Your task to perform on an android device: allow cookies in the chrome app Image 0: 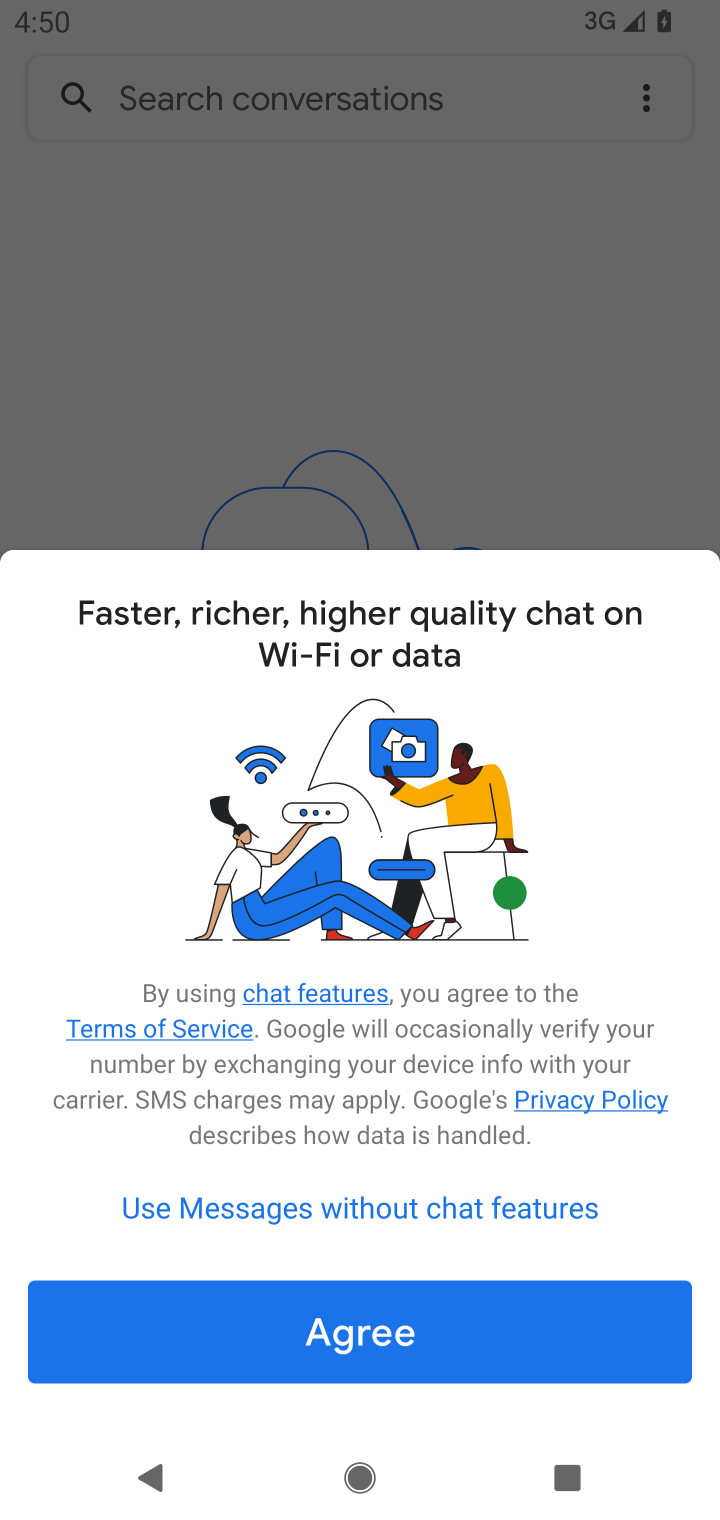
Step 0: press home button
Your task to perform on an android device: allow cookies in the chrome app Image 1: 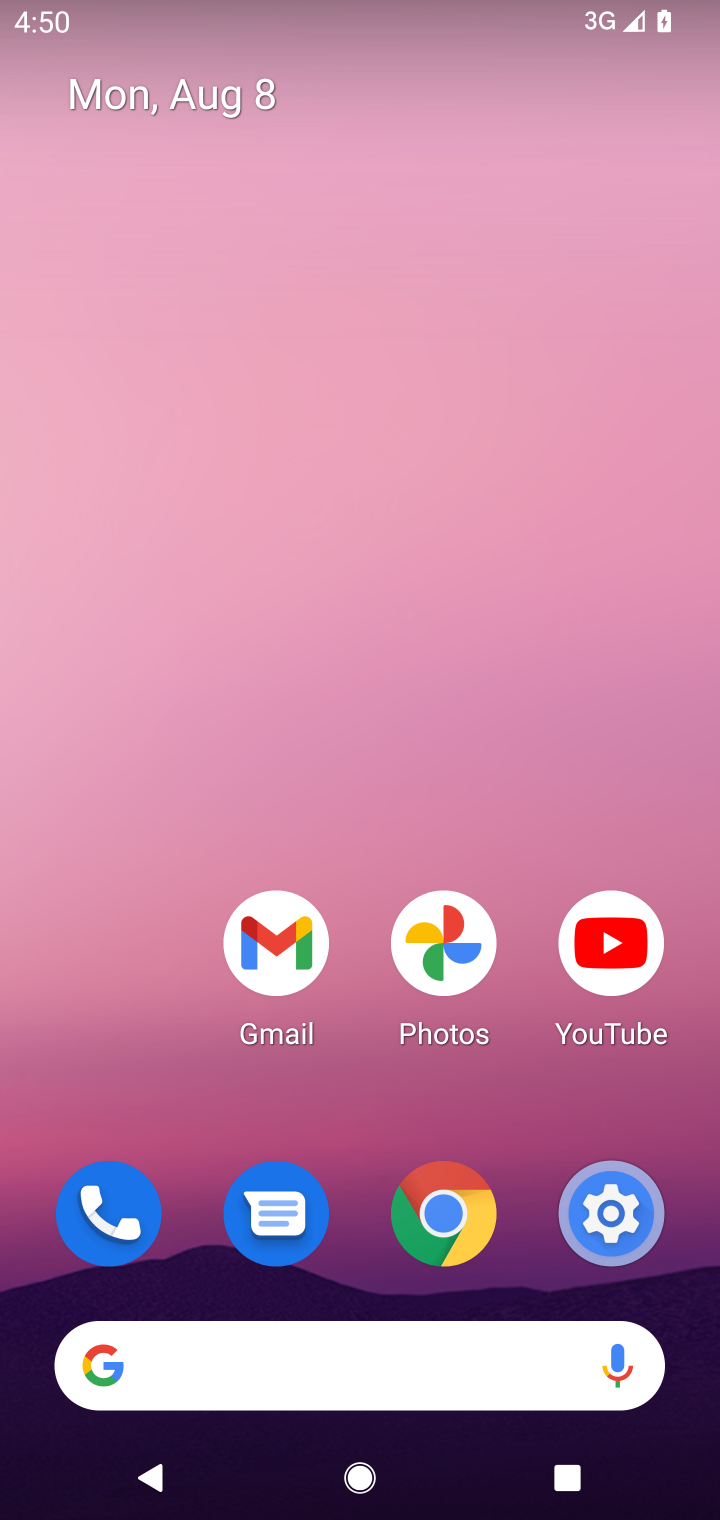
Step 1: click (406, 1193)
Your task to perform on an android device: allow cookies in the chrome app Image 2: 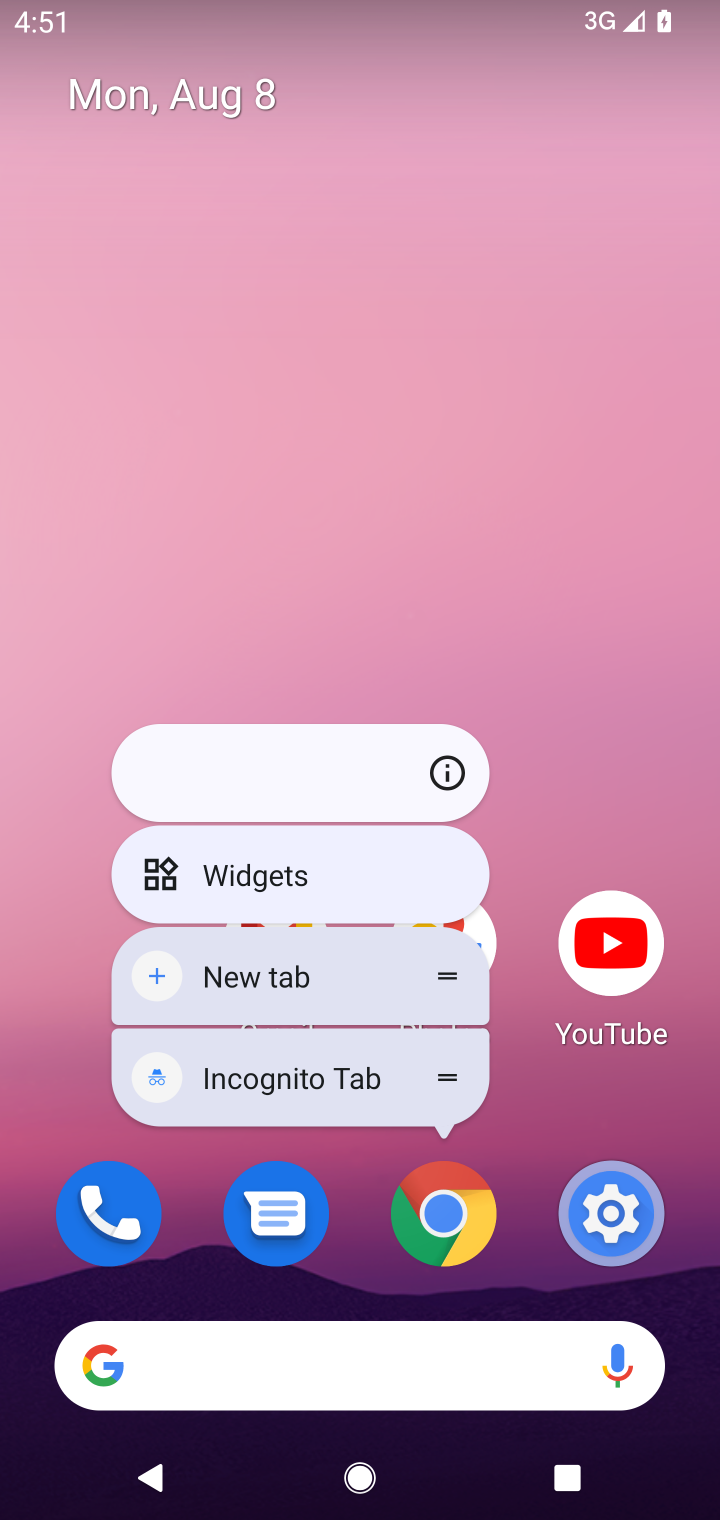
Step 2: click (406, 1193)
Your task to perform on an android device: allow cookies in the chrome app Image 3: 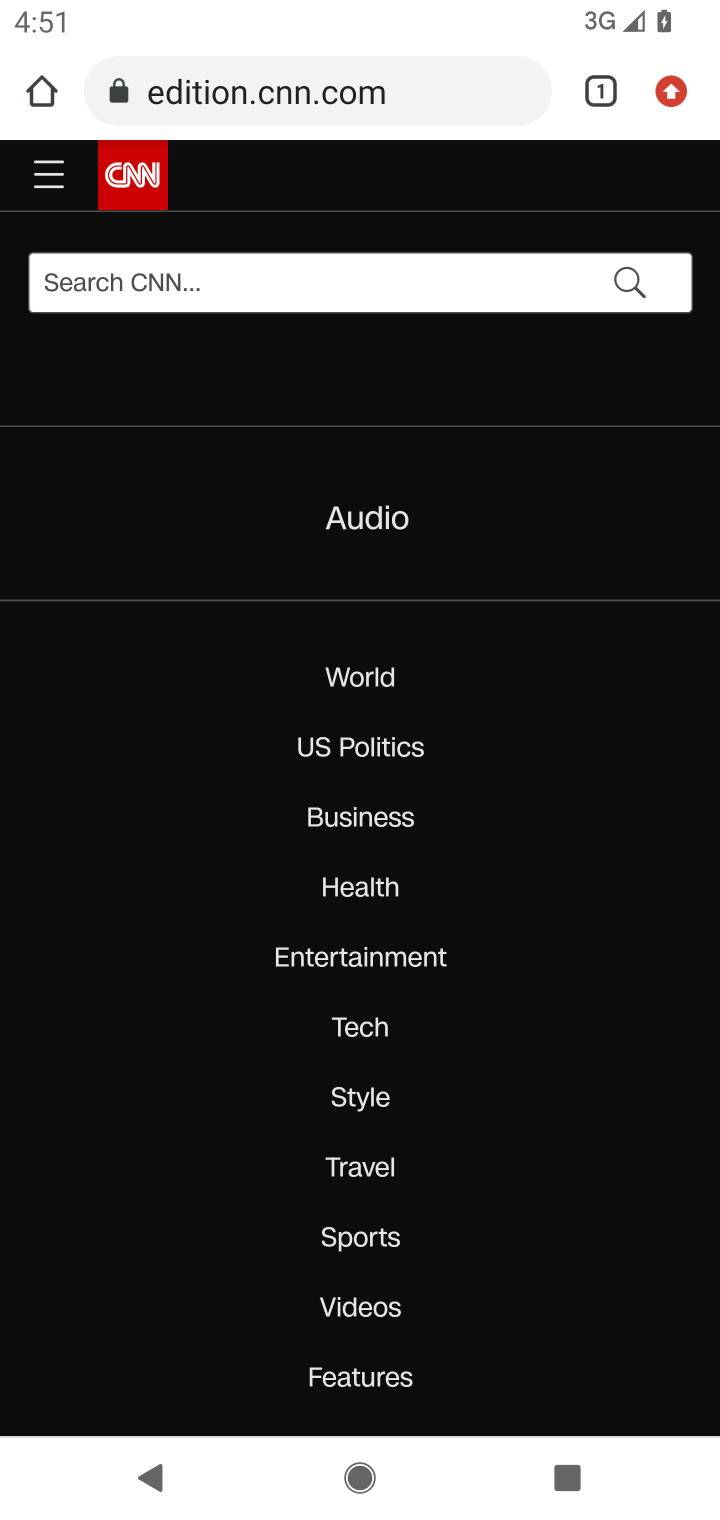
Step 3: click (674, 91)
Your task to perform on an android device: allow cookies in the chrome app Image 4: 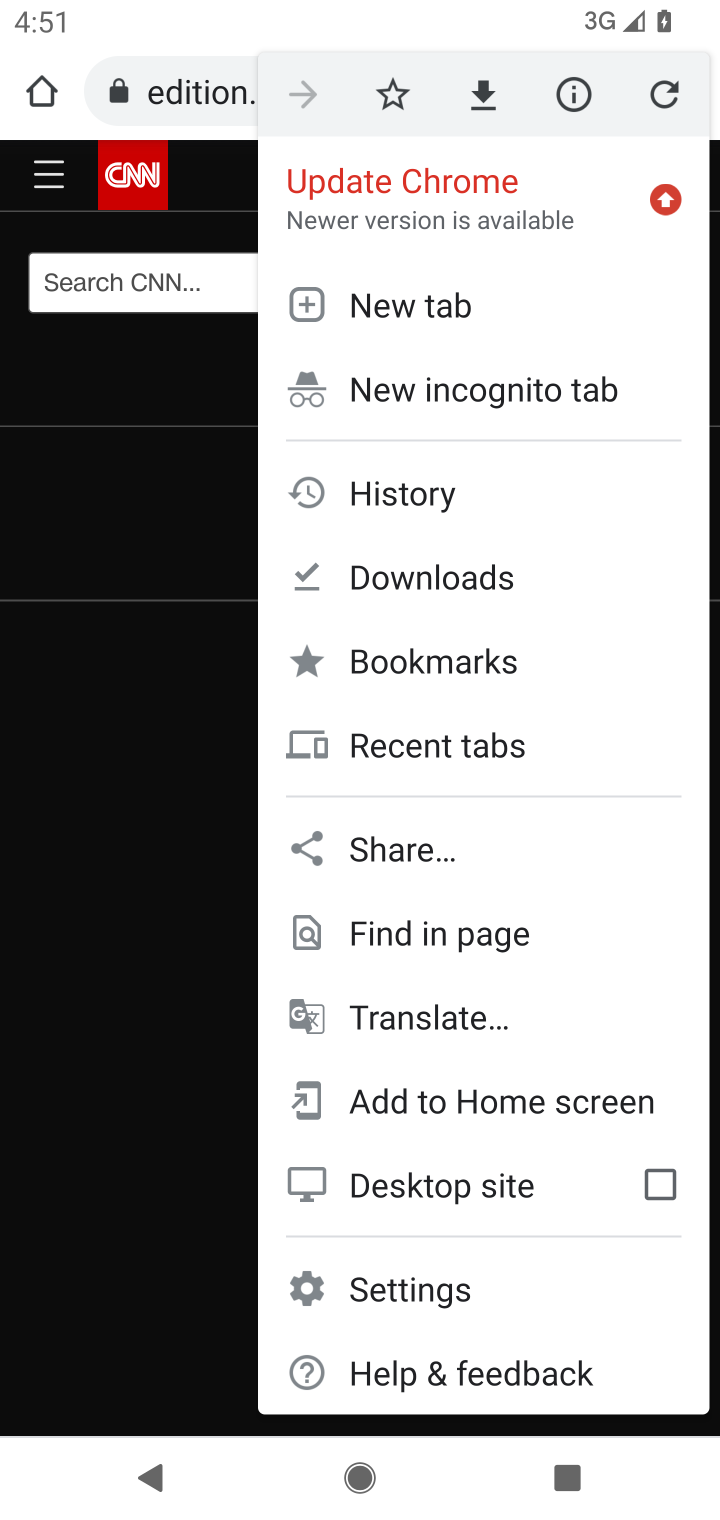
Step 4: click (416, 1276)
Your task to perform on an android device: allow cookies in the chrome app Image 5: 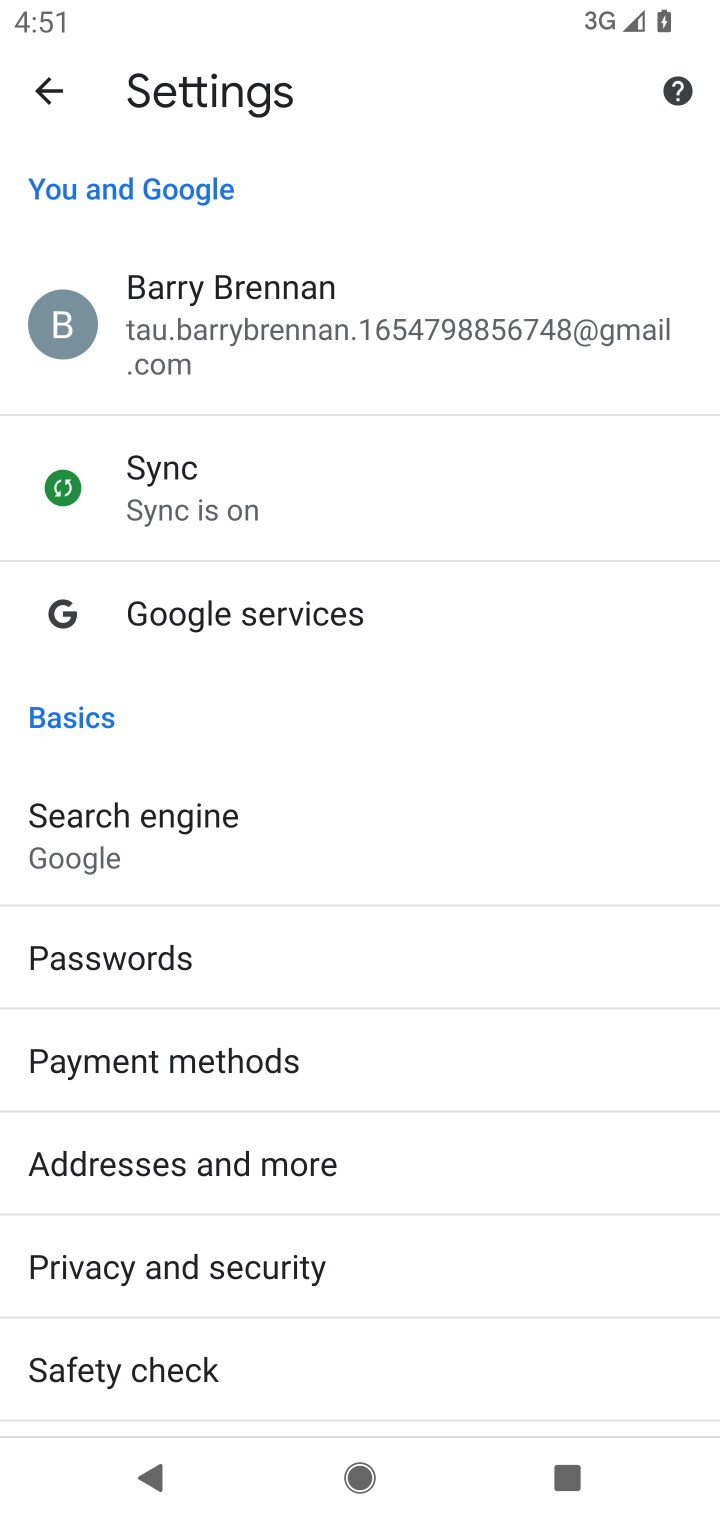
Step 5: drag from (416, 934) to (417, 628)
Your task to perform on an android device: allow cookies in the chrome app Image 6: 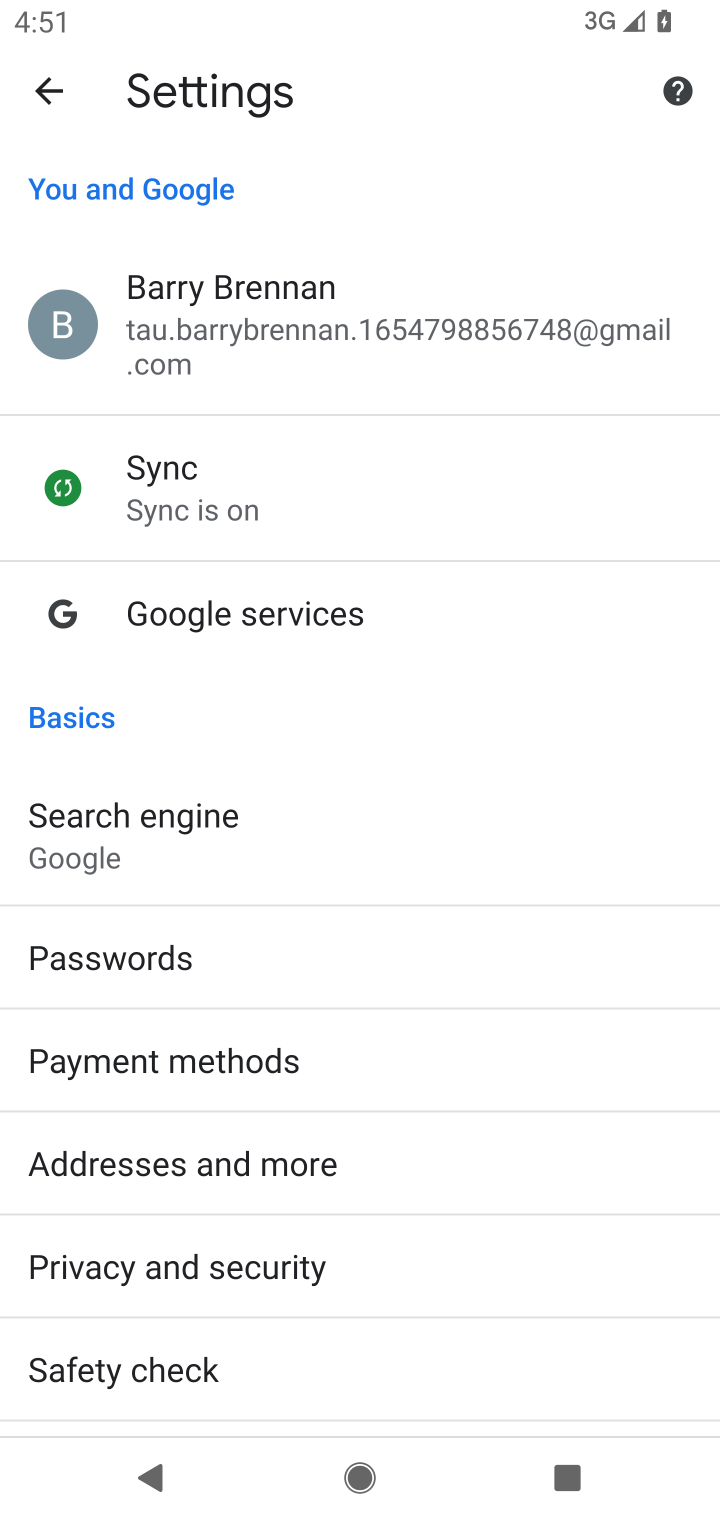
Step 6: drag from (459, 1229) to (459, 233)
Your task to perform on an android device: allow cookies in the chrome app Image 7: 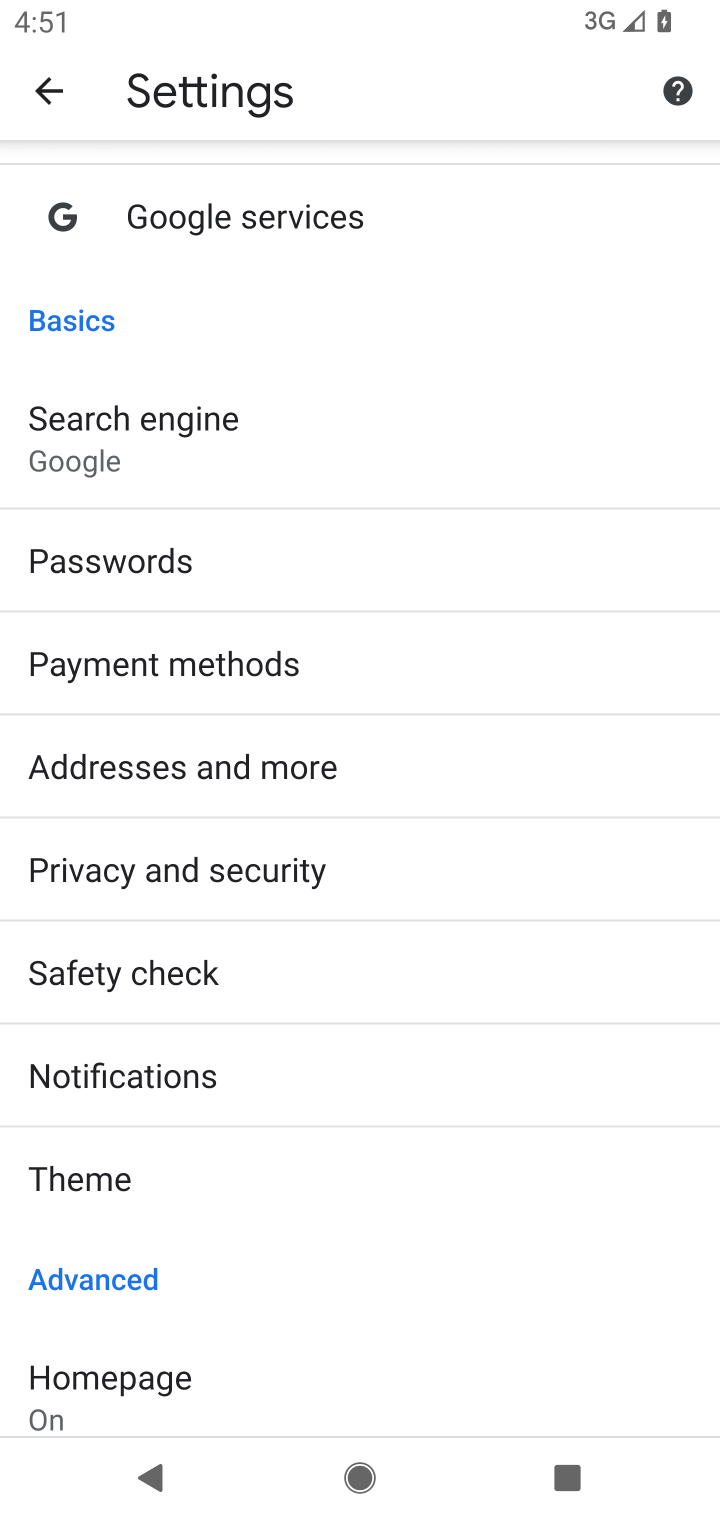
Step 7: drag from (107, 1110) to (76, 365)
Your task to perform on an android device: allow cookies in the chrome app Image 8: 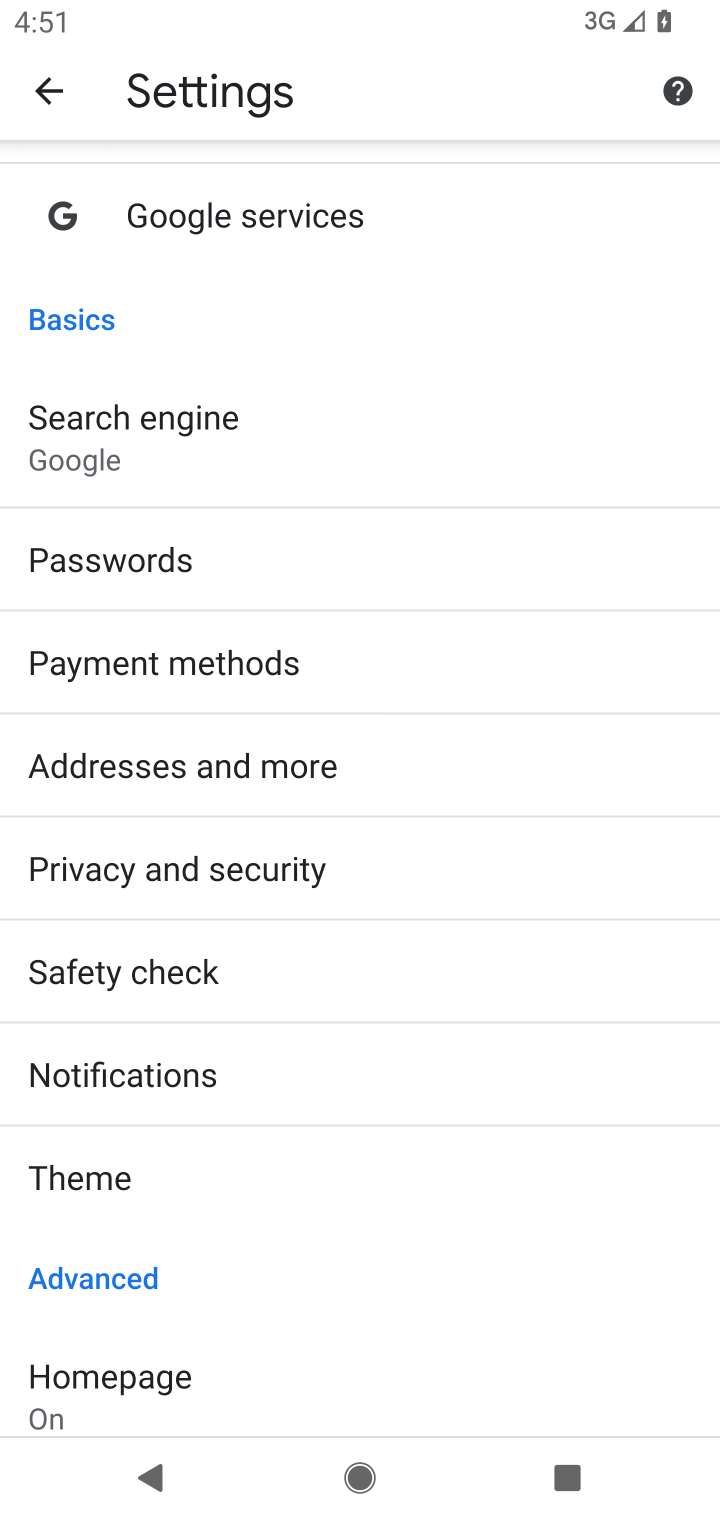
Step 8: drag from (311, 1258) to (296, 305)
Your task to perform on an android device: allow cookies in the chrome app Image 9: 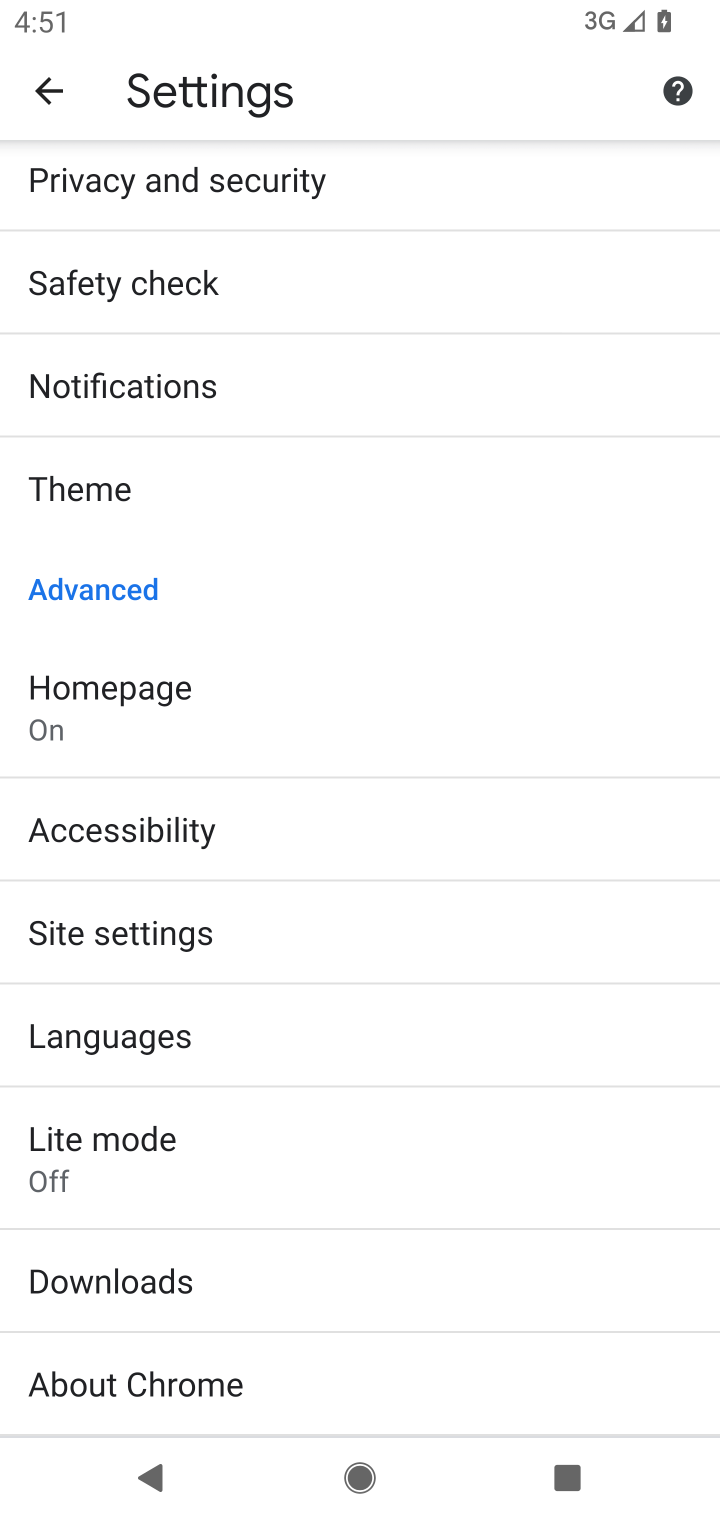
Step 9: click (187, 931)
Your task to perform on an android device: allow cookies in the chrome app Image 10: 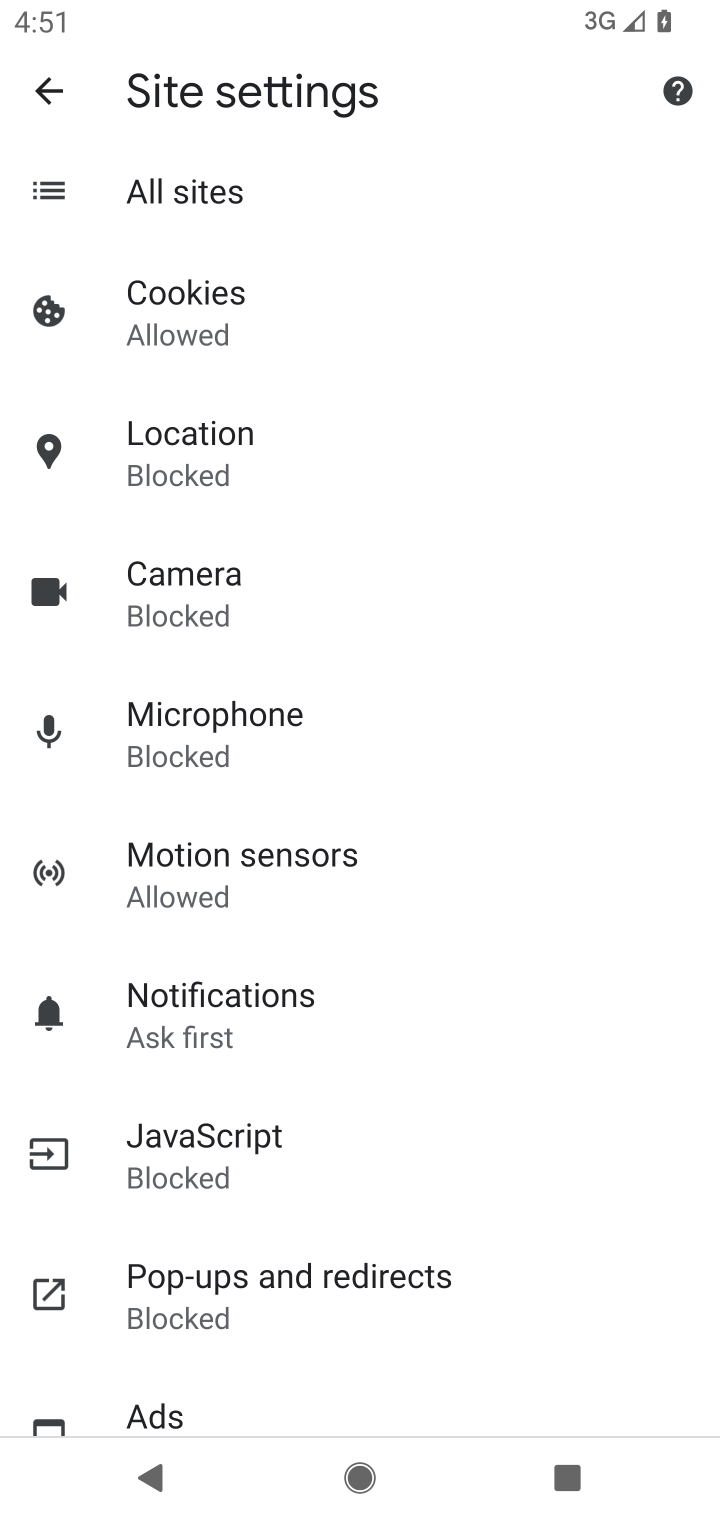
Step 10: click (232, 276)
Your task to perform on an android device: allow cookies in the chrome app Image 11: 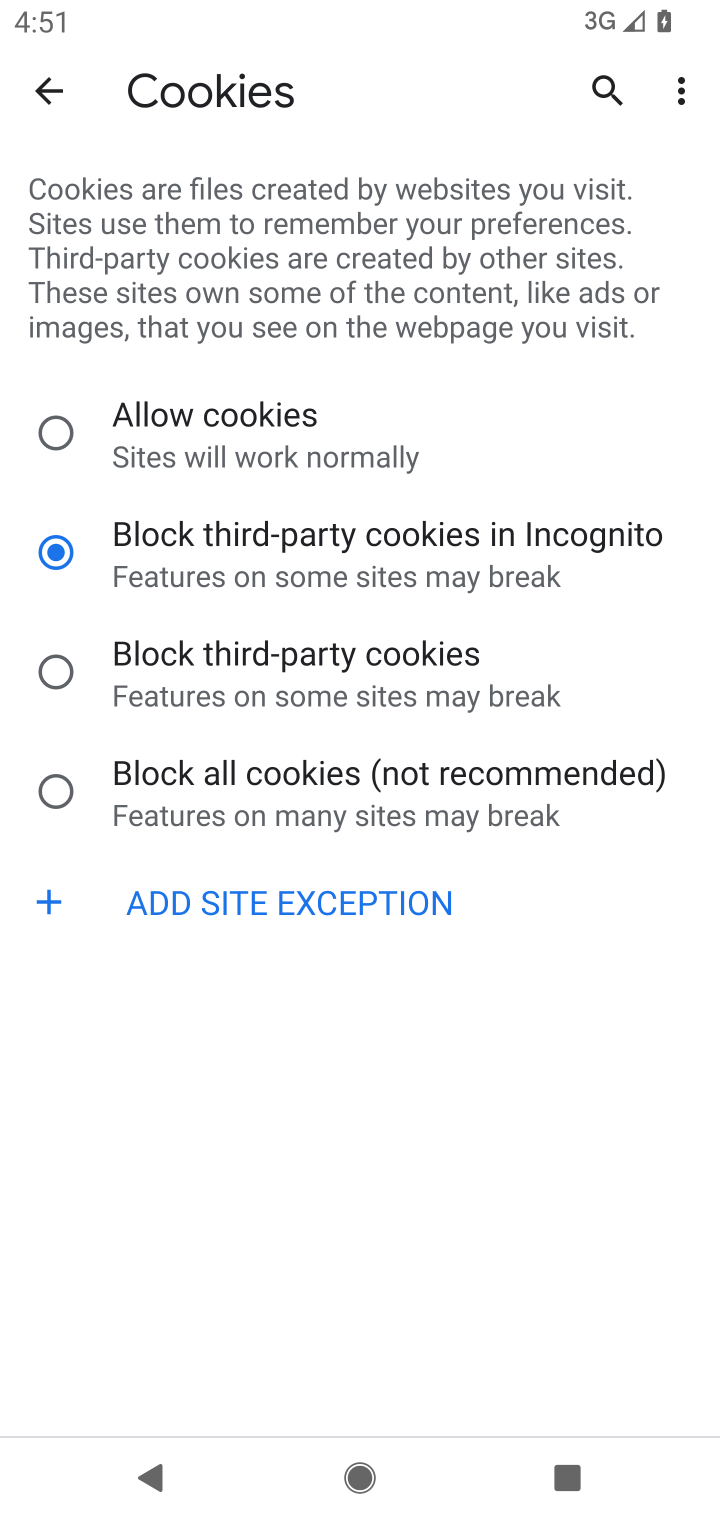
Step 11: click (117, 440)
Your task to perform on an android device: allow cookies in the chrome app Image 12: 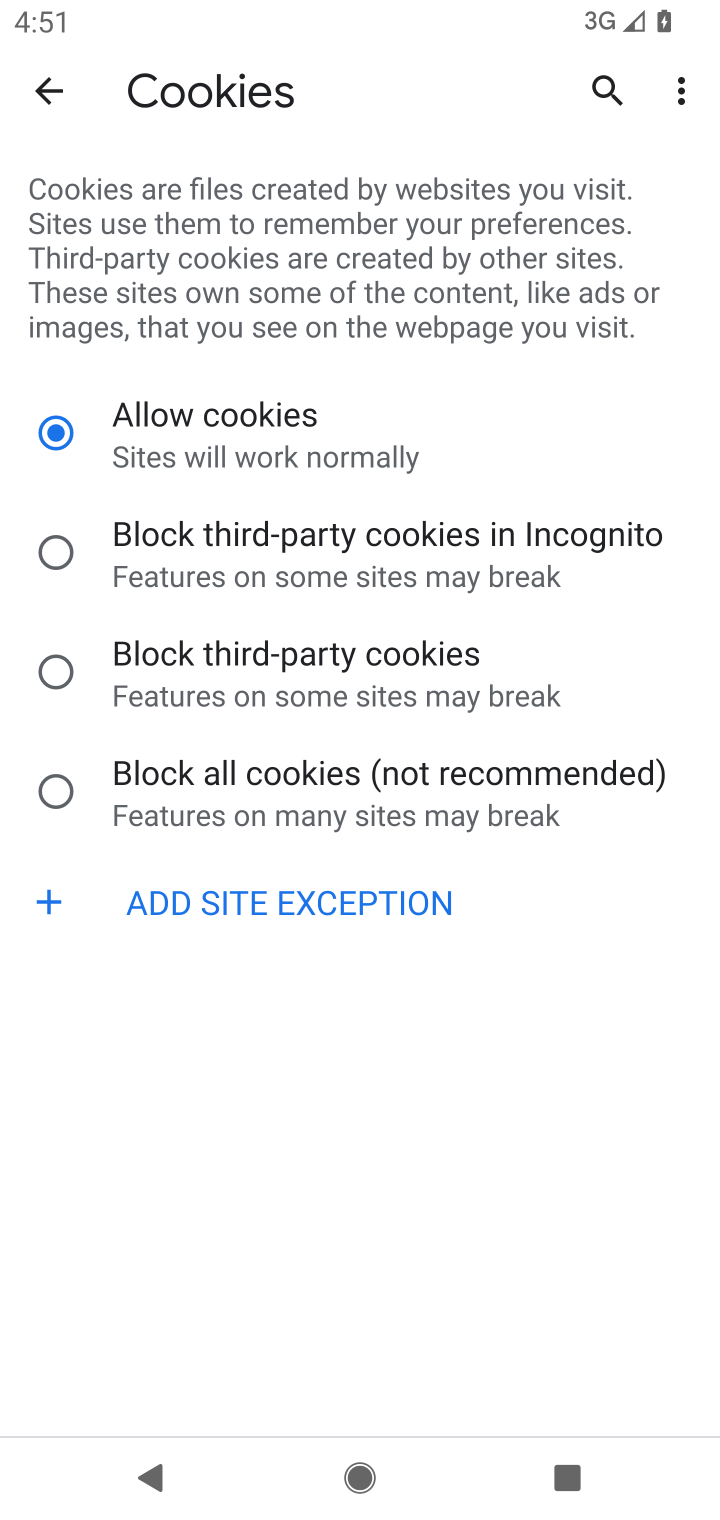
Step 12: task complete